Your task to perform on an android device: uninstall "DoorDash - Dasher" Image 0: 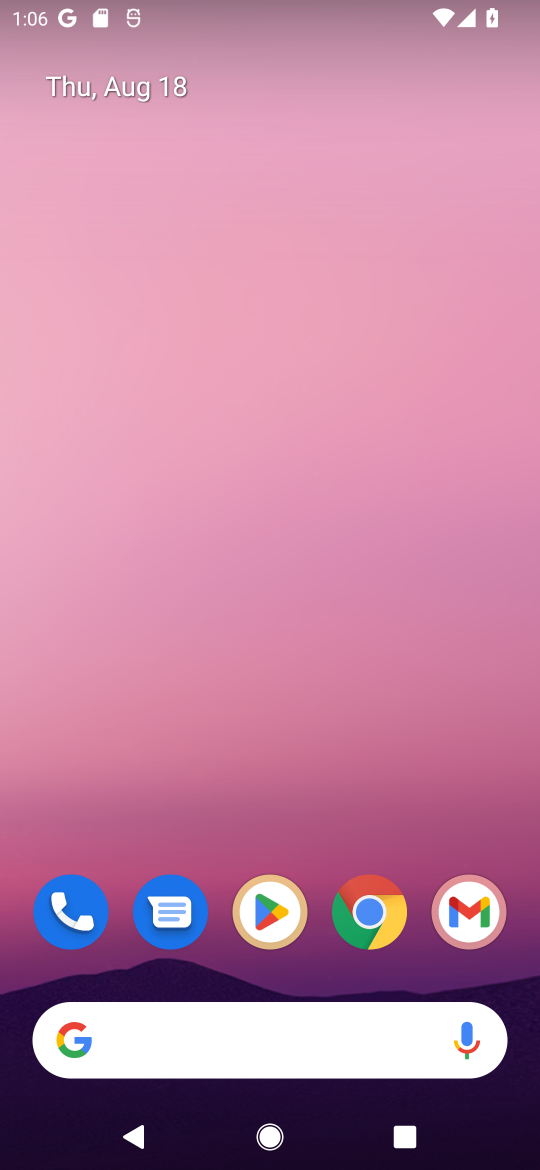
Step 0: click (283, 900)
Your task to perform on an android device: uninstall "DoorDash - Dasher" Image 1: 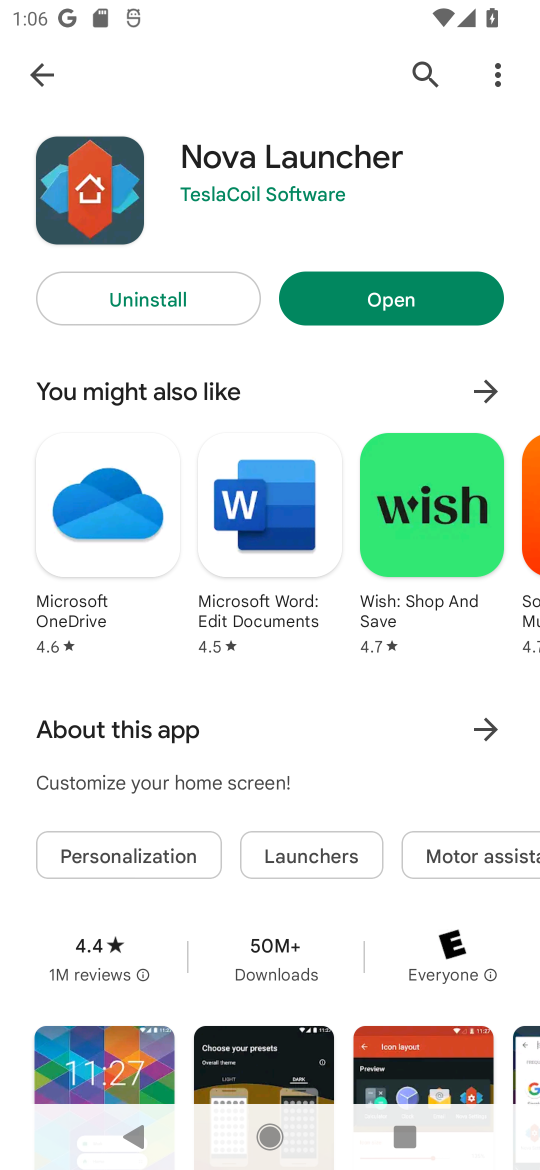
Step 1: click (421, 62)
Your task to perform on an android device: uninstall "DoorDash - Dasher" Image 2: 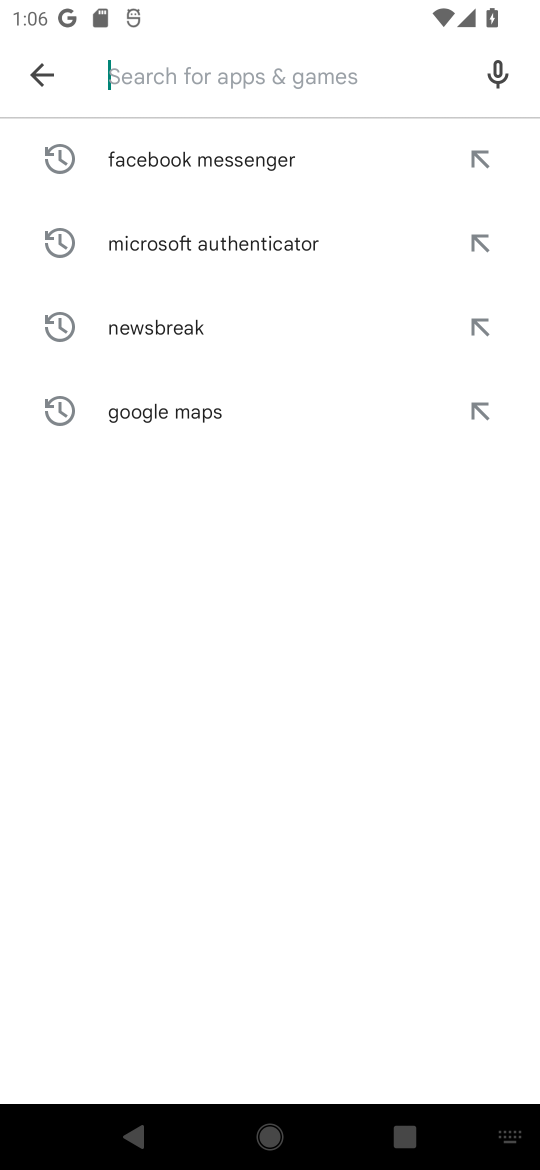
Step 2: click (201, 68)
Your task to perform on an android device: uninstall "DoorDash - Dasher" Image 3: 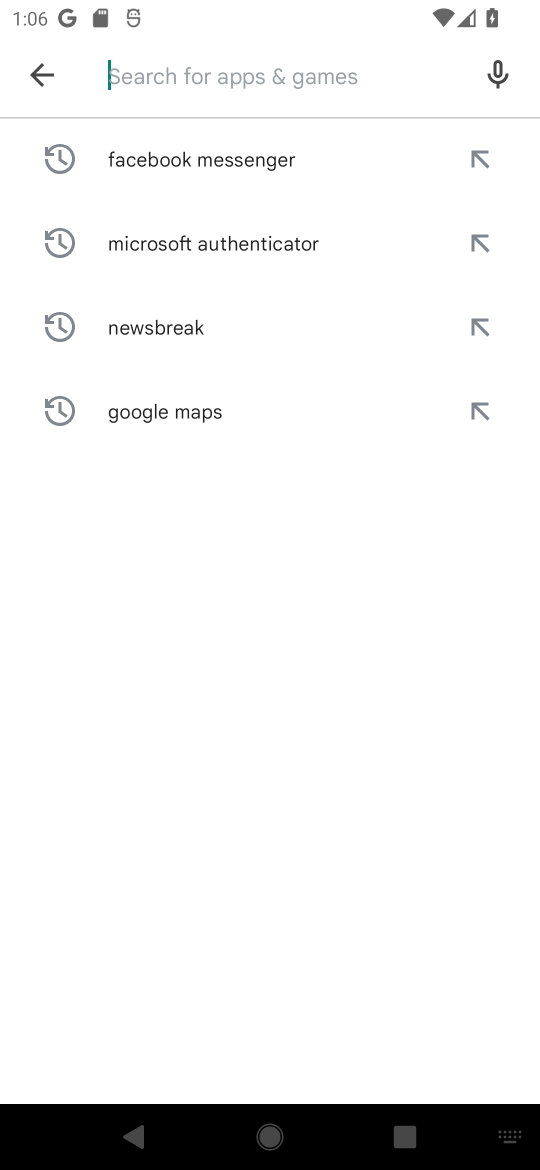
Step 3: type "doordash"
Your task to perform on an android device: uninstall "DoorDash - Dasher" Image 4: 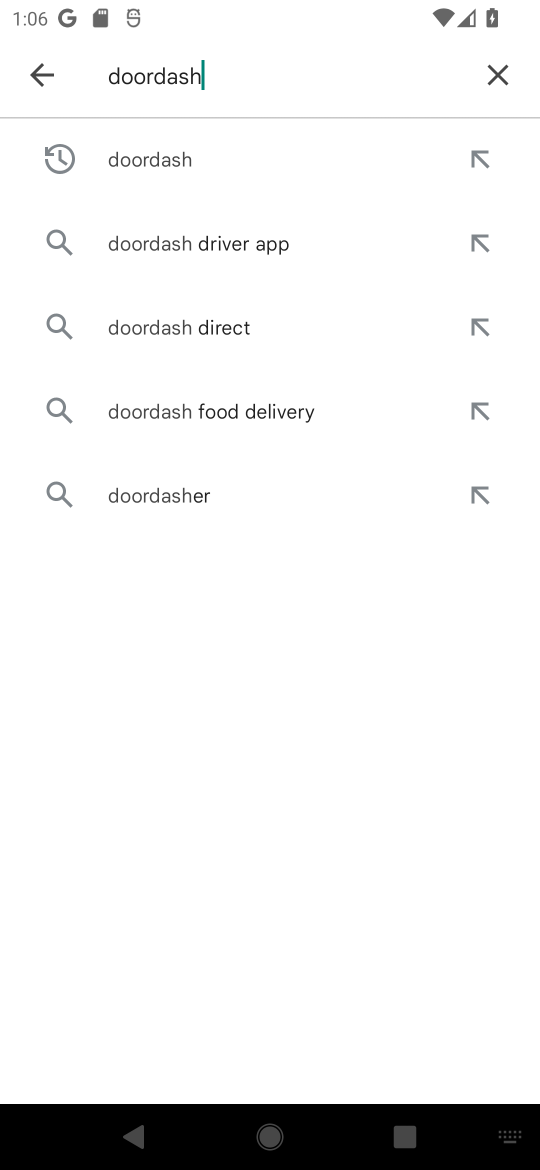
Step 4: click (195, 166)
Your task to perform on an android device: uninstall "DoorDash - Dasher" Image 5: 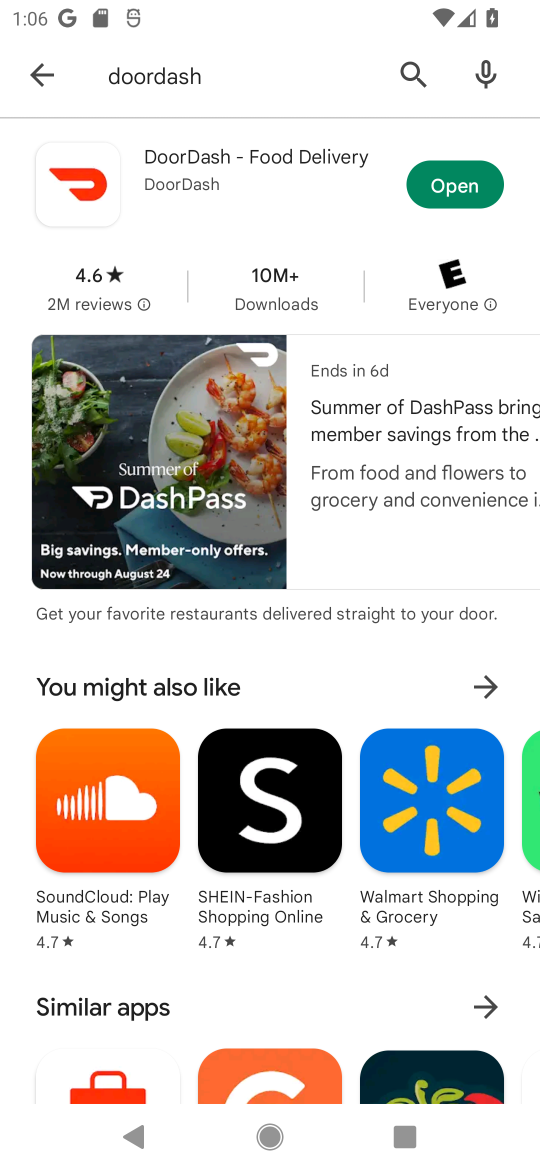
Step 5: click (101, 1075)
Your task to perform on an android device: uninstall "DoorDash - Dasher" Image 6: 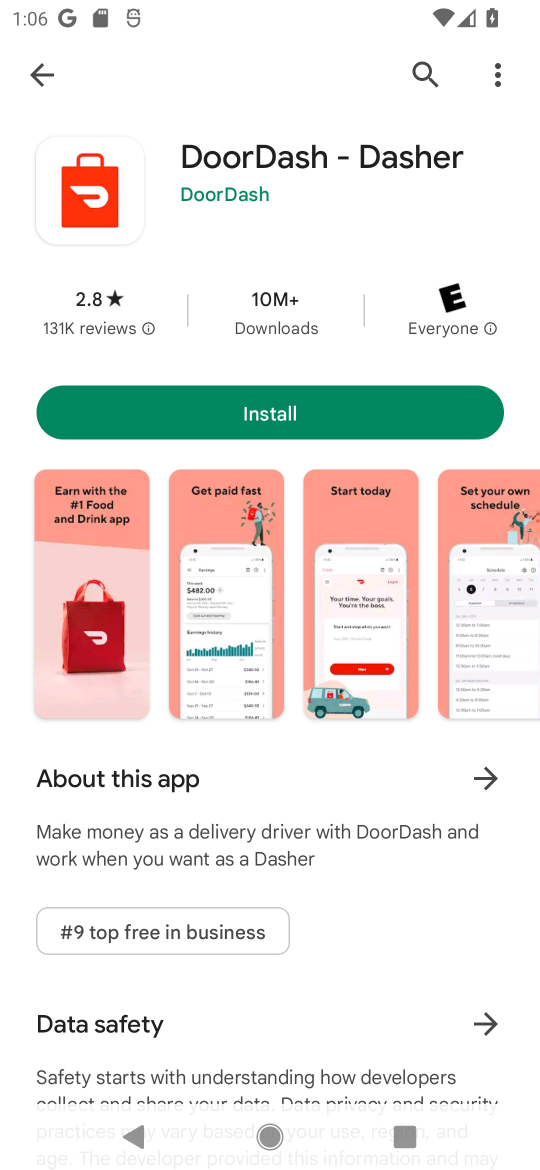
Step 6: task complete